Your task to perform on an android device: toggle improve location accuracy Image 0: 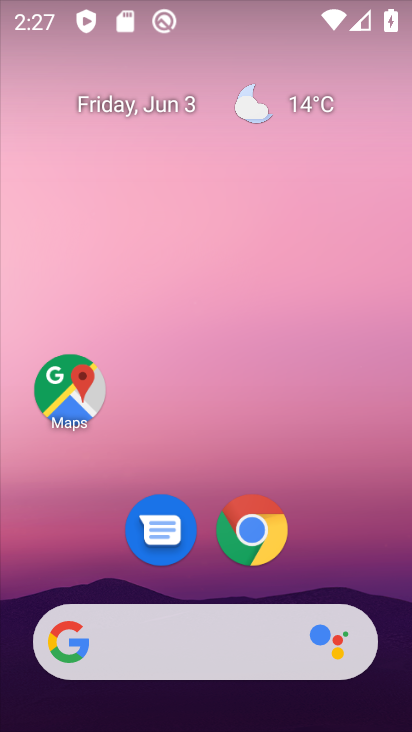
Step 0: drag from (99, 523) to (232, 195)
Your task to perform on an android device: toggle improve location accuracy Image 1: 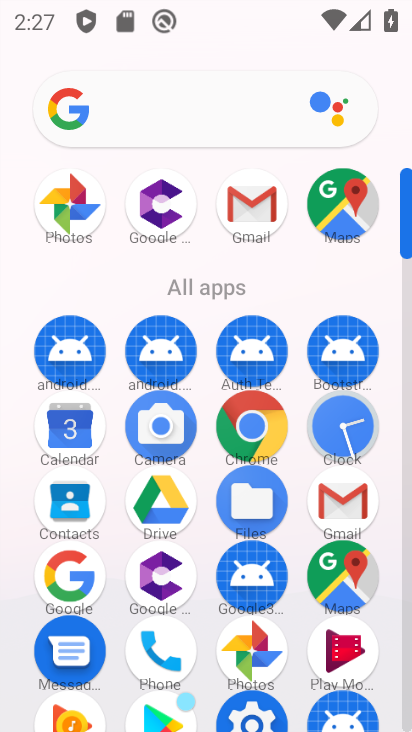
Step 1: drag from (282, 672) to (312, 389)
Your task to perform on an android device: toggle improve location accuracy Image 2: 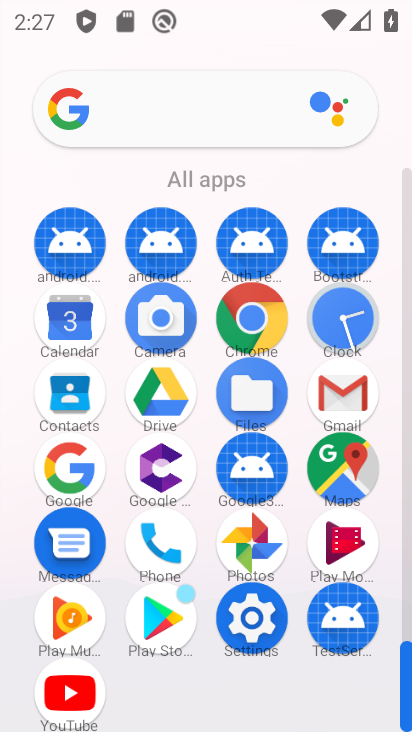
Step 2: click (259, 612)
Your task to perform on an android device: toggle improve location accuracy Image 3: 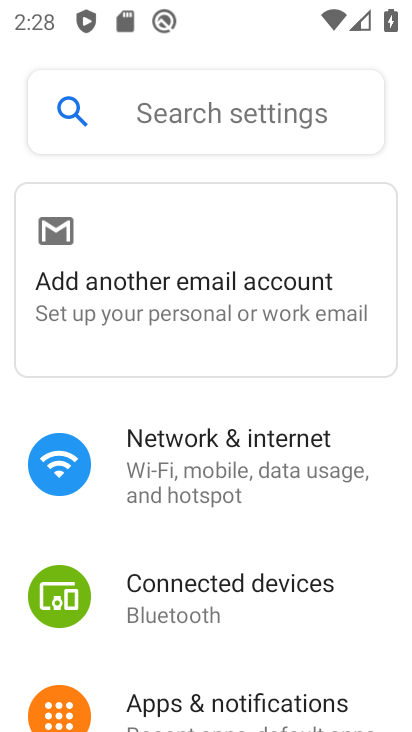
Step 3: drag from (199, 680) to (386, 289)
Your task to perform on an android device: toggle improve location accuracy Image 4: 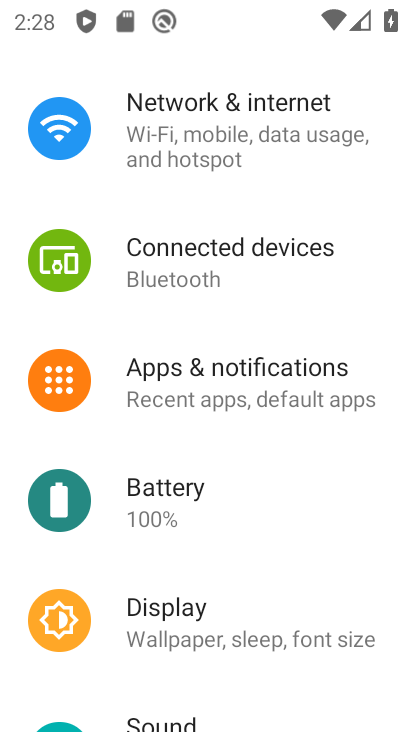
Step 4: drag from (174, 660) to (291, 293)
Your task to perform on an android device: toggle improve location accuracy Image 5: 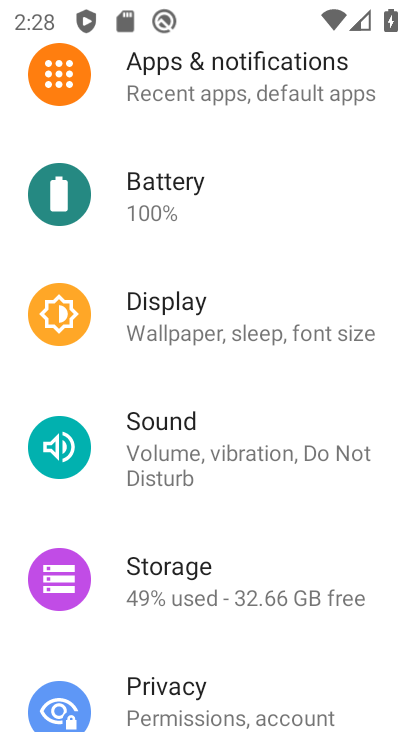
Step 5: drag from (165, 635) to (265, 347)
Your task to perform on an android device: toggle improve location accuracy Image 6: 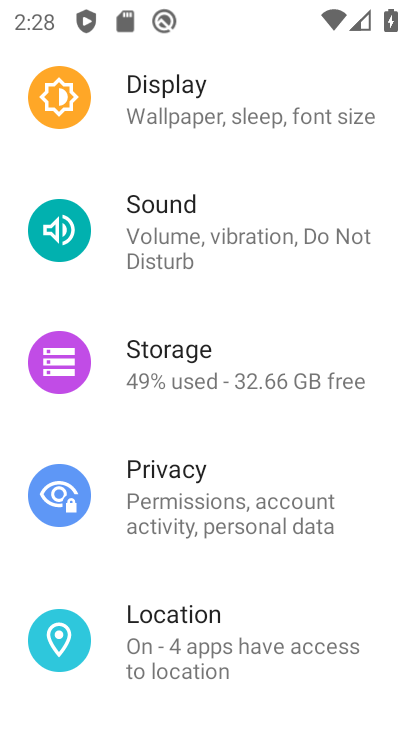
Step 6: click (169, 654)
Your task to perform on an android device: toggle improve location accuracy Image 7: 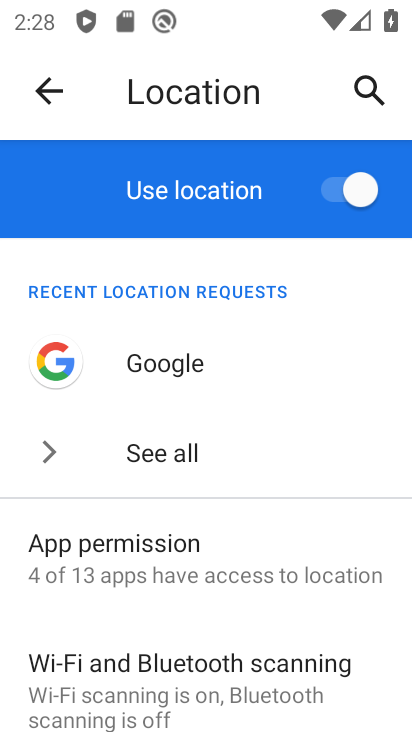
Step 7: drag from (121, 600) to (326, 328)
Your task to perform on an android device: toggle improve location accuracy Image 8: 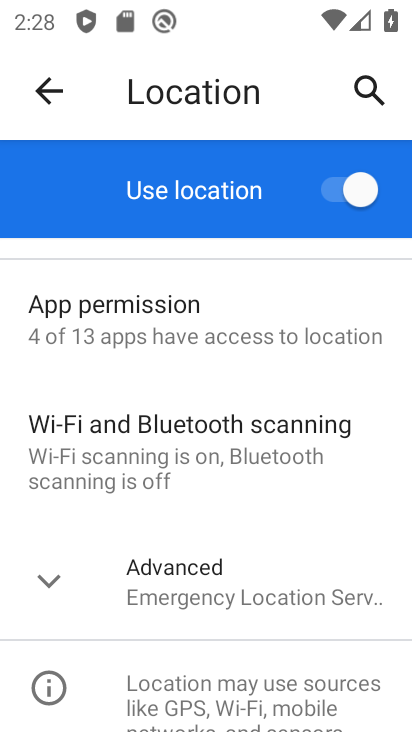
Step 8: click (221, 602)
Your task to perform on an android device: toggle improve location accuracy Image 9: 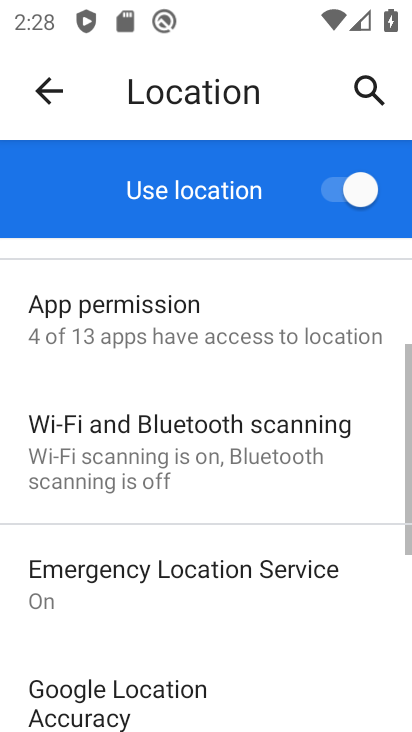
Step 9: drag from (216, 636) to (327, 254)
Your task to perform on an android device: toggle improve location accuracy Image 10: 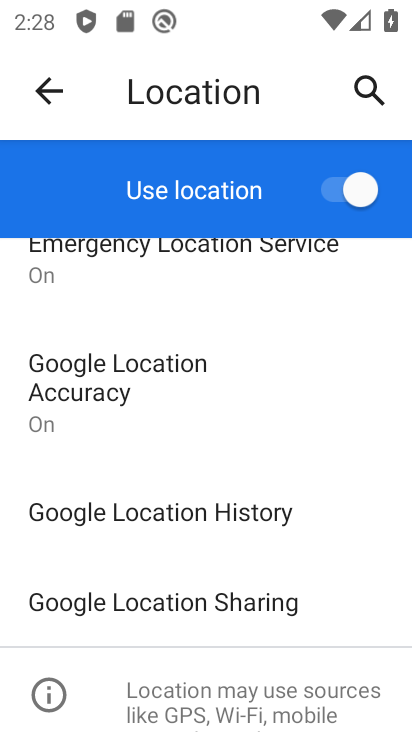
Step 10: click (193, 405)
Your task to perform on an android device: toggle improve location accuracy Image 11: 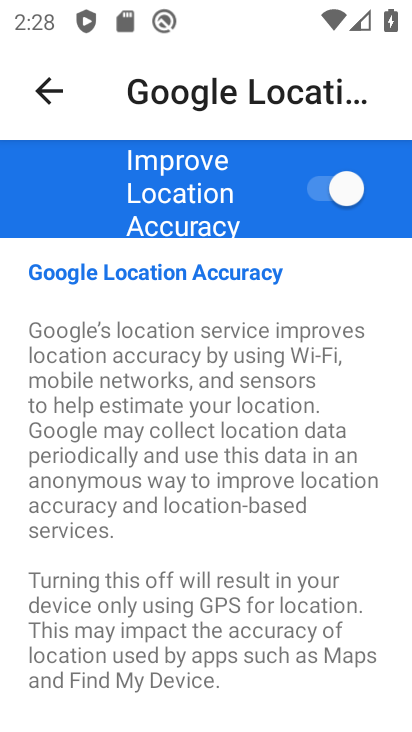
Step 11: click (319, 193)
Your task to perform on an android device: toggle improve location accuracy Image 12: 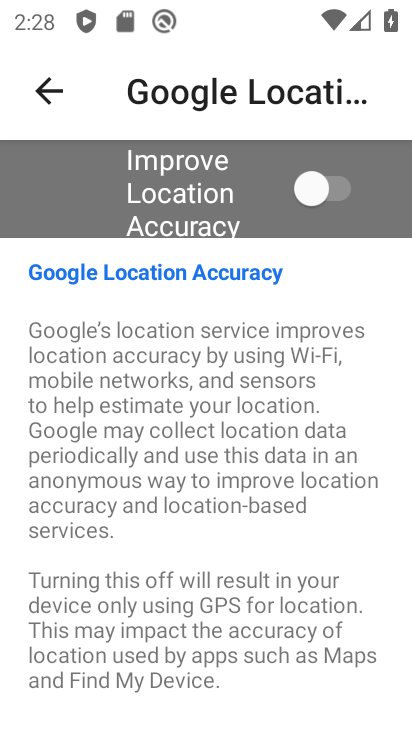
Step 12: task complete